Your task to perform on an android device: clear all cookies in the chrome app Image 0: 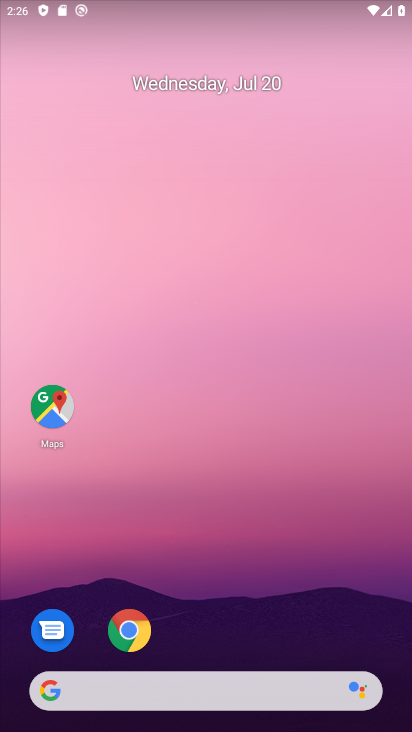
Step 0: drag from (237, 650) to (206, 115)
Your task to perform on an android device: clear all cookies in the chrome app Image 1: 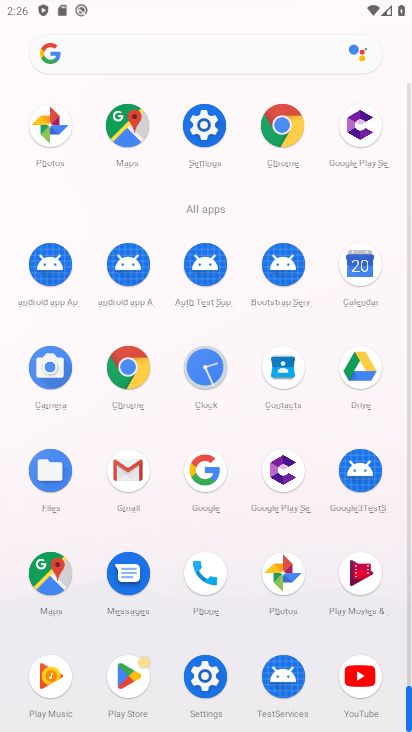
Step 1: click (268, 124)
Your task to perform on an android device: clear all cookies in the chrome app Image 2: 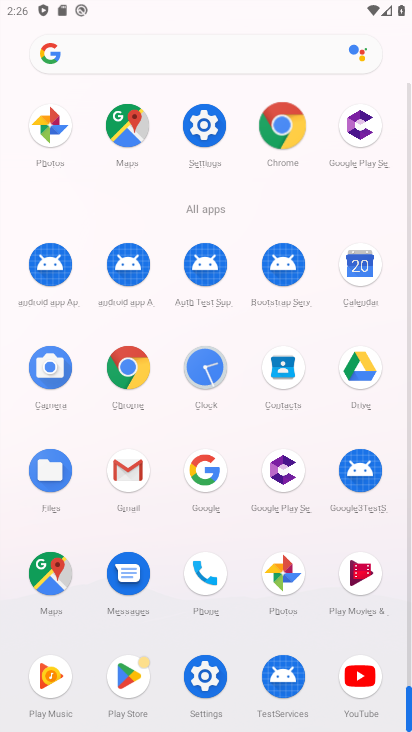
Step 2: click (274, 118)
Your task to perform on an android device: clear all cookies in the chrome app Image 3: 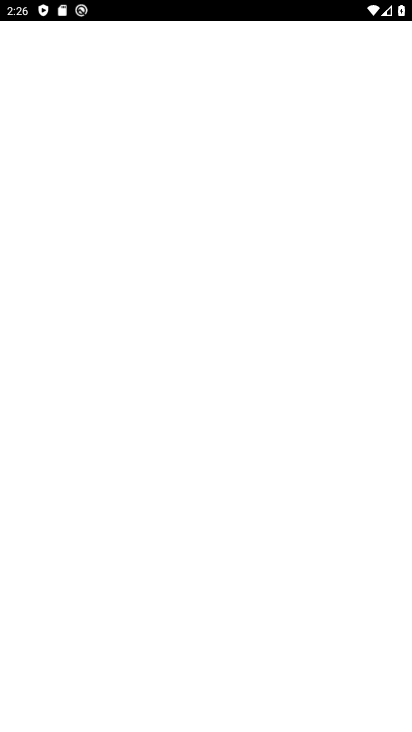
Step 3: click (274, 118)
Your task to perform on an android device: clear all cookies in the chrome app Image 4: 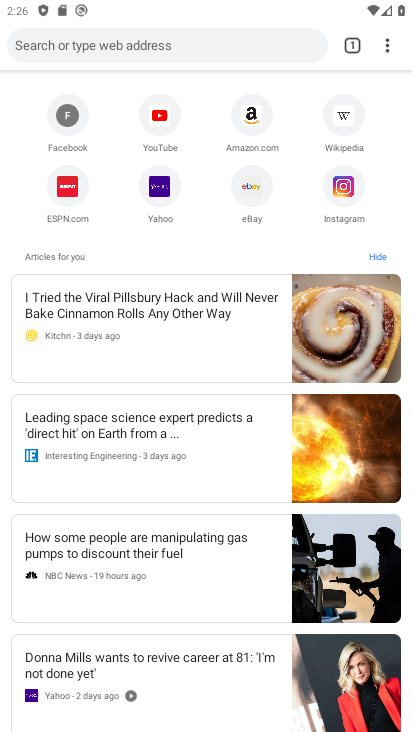
Step 4: drag from (382, 45) to (213, 376)
Your task to perform on an android device: clear all cookies in the chrome app Image 5: 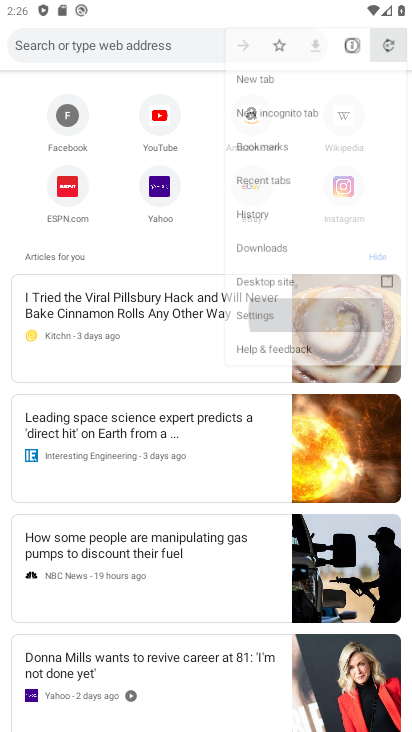
Step 5: click (212, 381)
Your task to perform on an android device: clear all cookies in the chrome app Image 6: 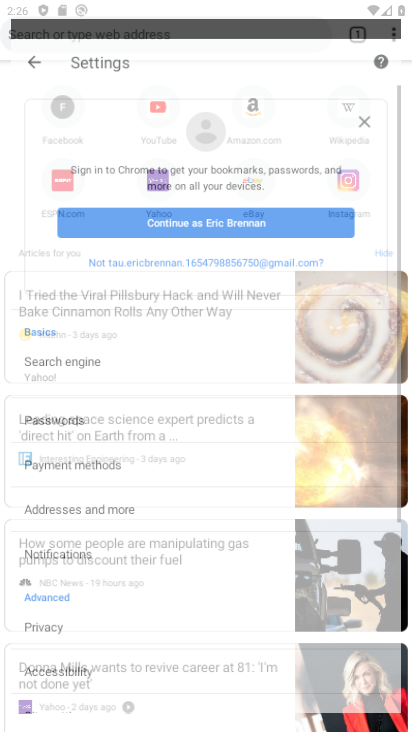
Step 6: click (226, 362)
Your task to perform on an android device: clear all cookies in the chrome app Image 7: 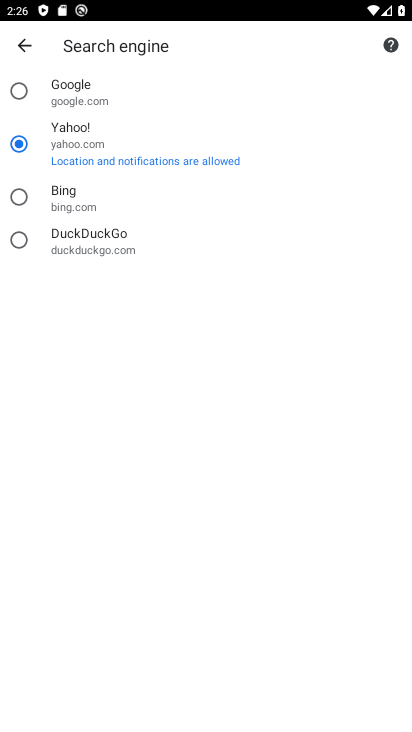
Step 7: click (17, 48)
Your task to perform on an android device: clear all cookies in the chrome app Image 8: 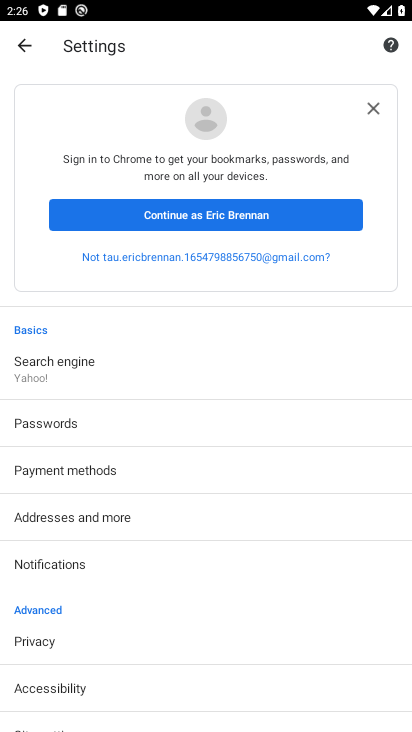
Step 8: drag from (116, 559) to (97, 300)
Your task to perform on an android device: clear all cookies in the chrome app Image 9: 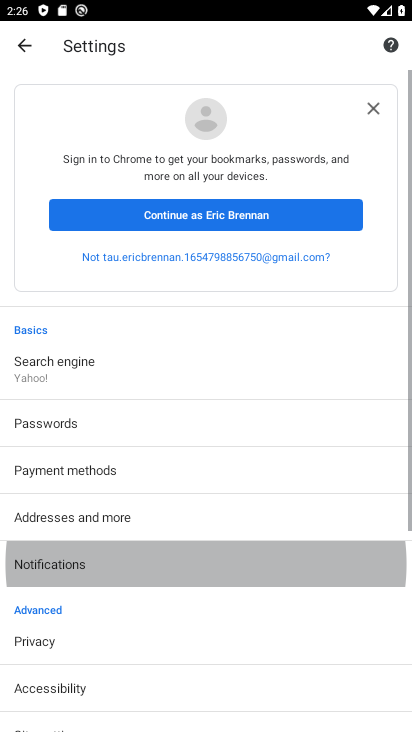
Step 9: drag from (90, 516) to (94, 308)
Your task to perform on an android device: clear all cookies in the chrome app Image 10: 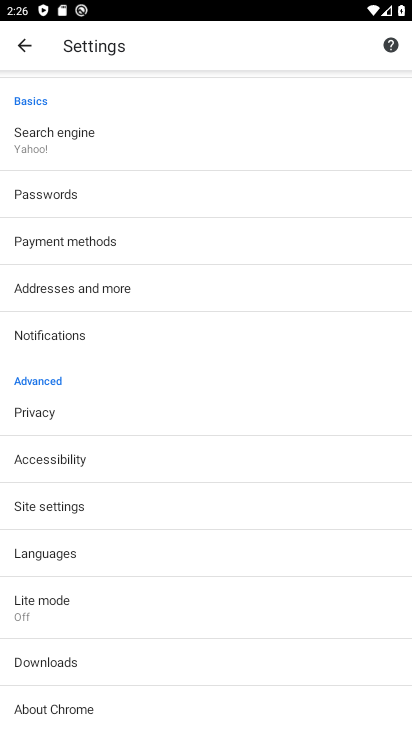
Step 10: click (38, 500)
Your task to perform on an android device: clear all cookies in the chrome app Image 11: 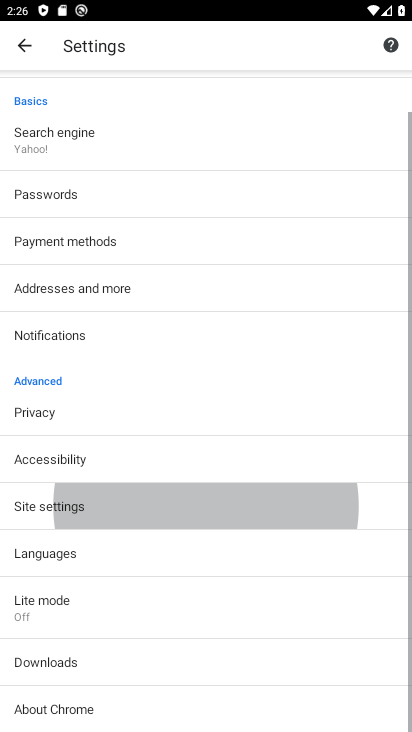
Step 11: click (38, 500)
Your task to perform on an android device: clear all cookies in the chrome app Image 12: 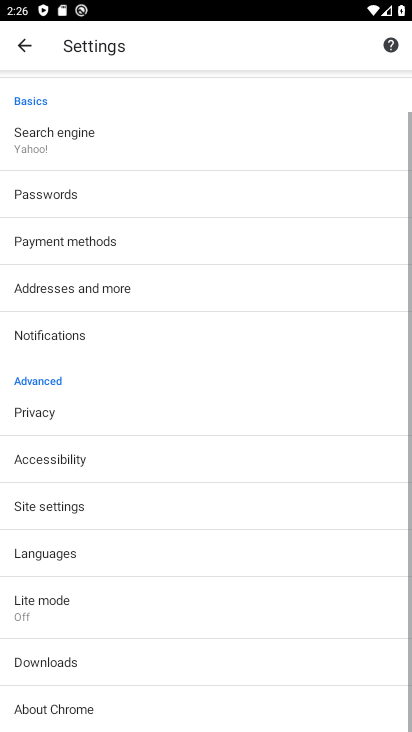
Step 12: click (38, 500)
Your task to perform on an android device: clear all cookies in the chrome app Image 13: 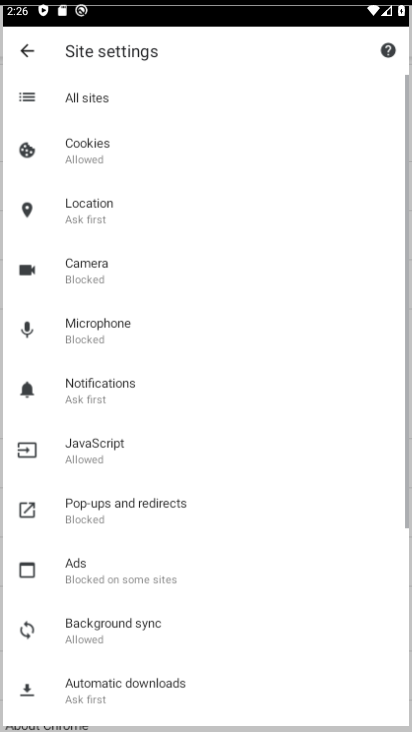
Step 13: click (38, 500)
Your task to perform on an android device: clear all cookies in the chrome app Image 14: 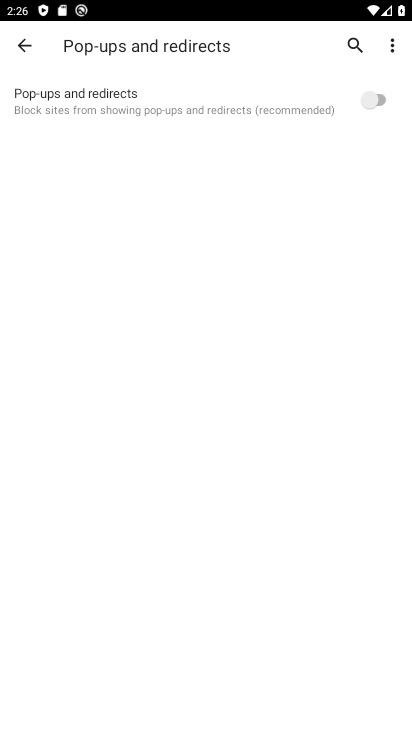
Step 14: click (17, 42)
Your task to perform on an android device: clear all cookies in the chrome app Image 15: 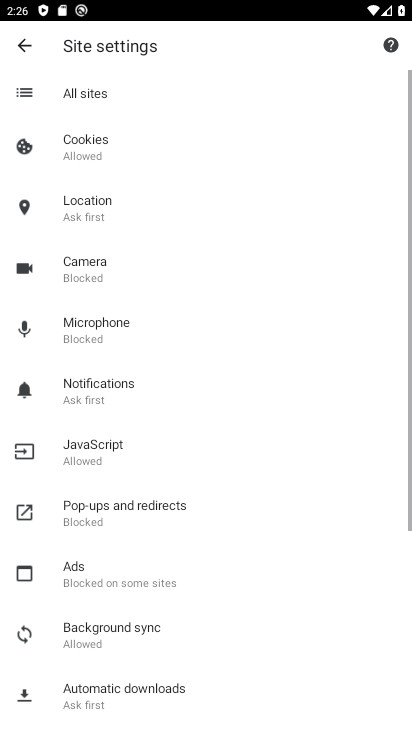
Step 15: click (84, 152)
Your task to perform on an android device: clear all cookies in the chrome app Image 16: 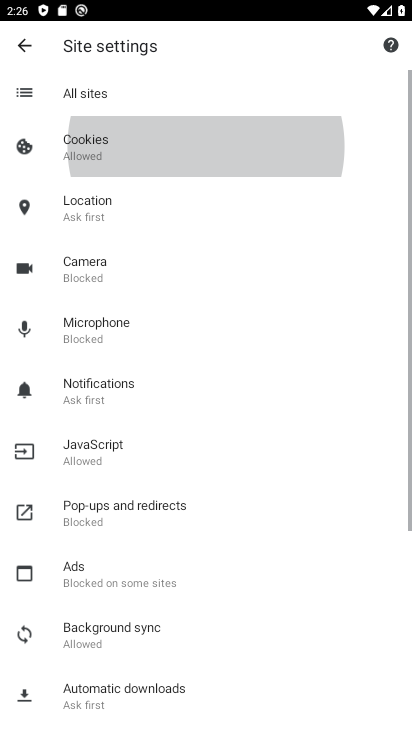
Step 16: click (82, 150)
Your task to perform on an android device: clear all cookies in the chrome app Image 17: 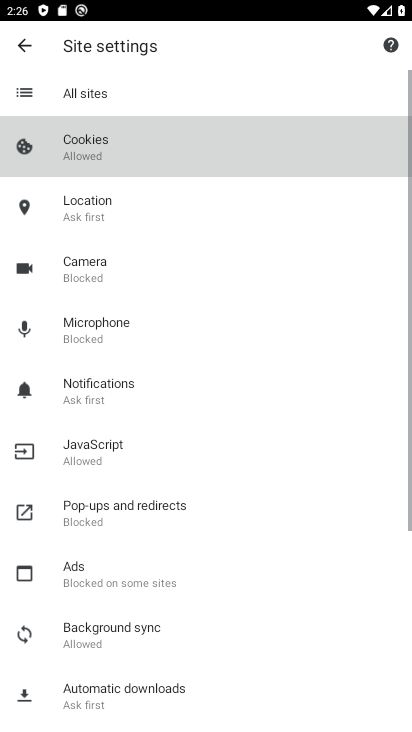
Step 17: click (81, 149)
Your task to perform on an android device: clear all cookies in the chrome app Image 18: 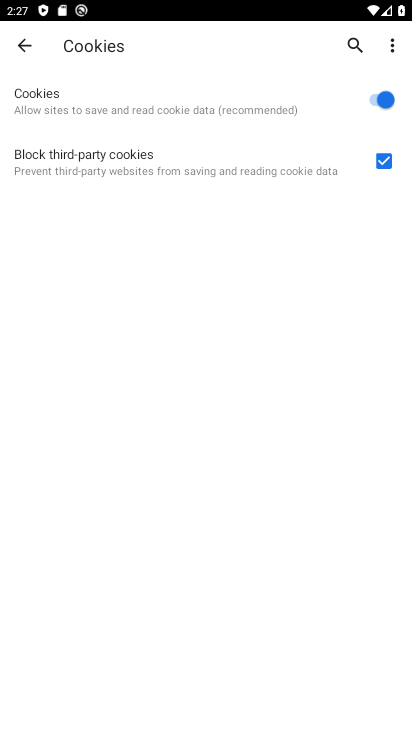
Step 18: click (383, 96)
Your task to perform on an android device: clear all cookies in the chrome app Image 19: 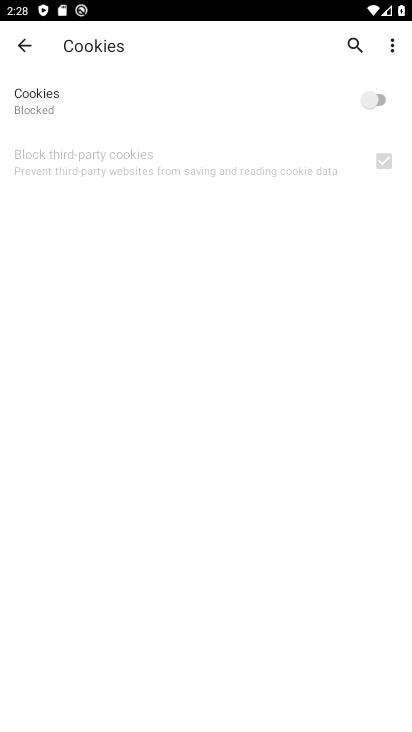
Step 19: task complete